Your task to perform on an android device: Open privacy settings Image 0: 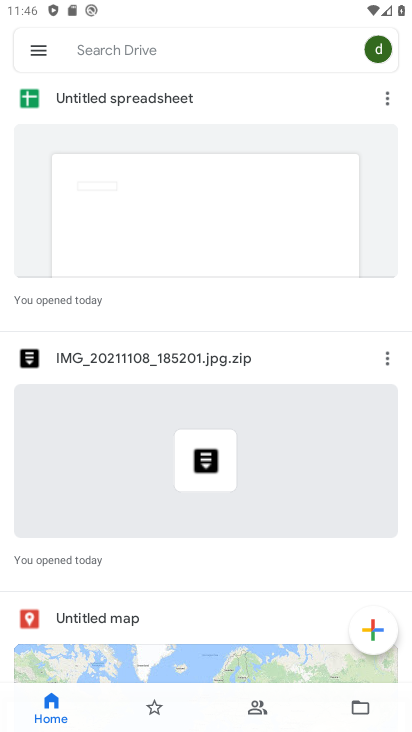
Step 0: press home button
Your task to perform on an android device: Open privacy settings Image 1: 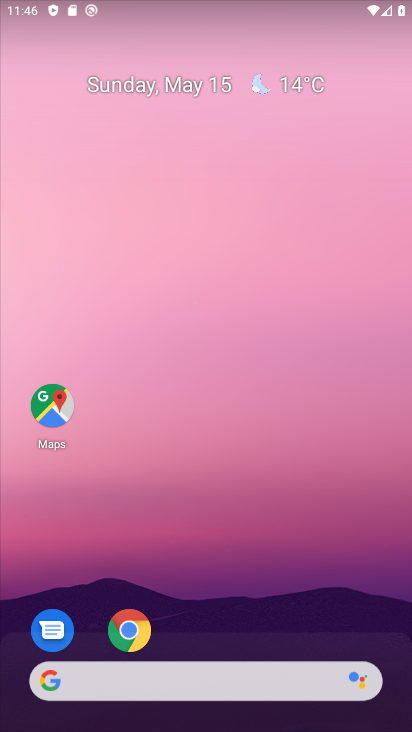
Step 1: drag from (257, 614) to (210, 208)
Your task to perform on an android device: Open privacy settings Image 2: 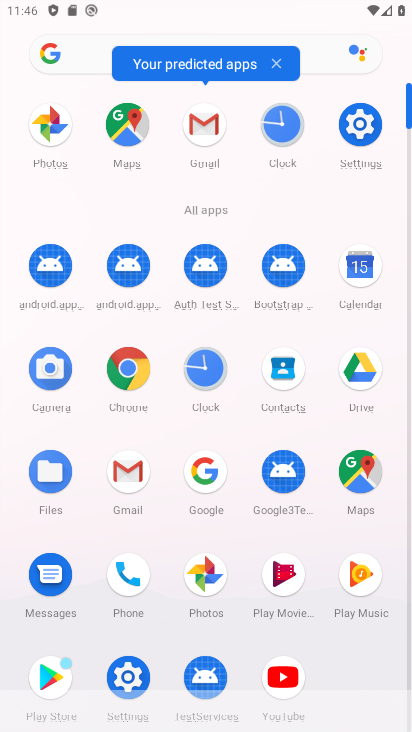
Step 2: click (357, 141)
Your task to perform on an android device: Open privacy settings Image 3: 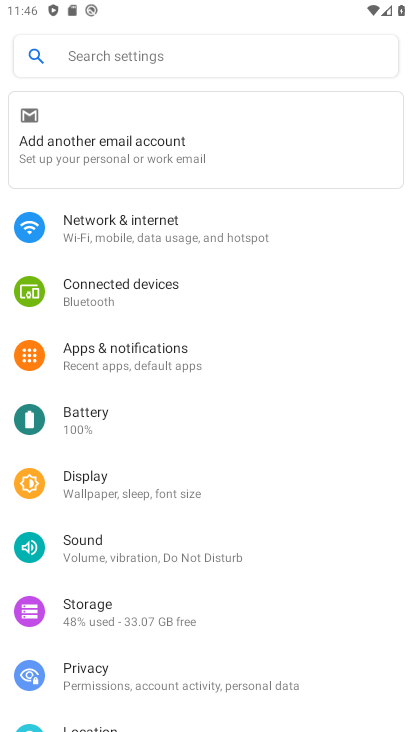
Step 3: click (199, 664)
Your task to perform on an android device: Open privacy settings Image 4: 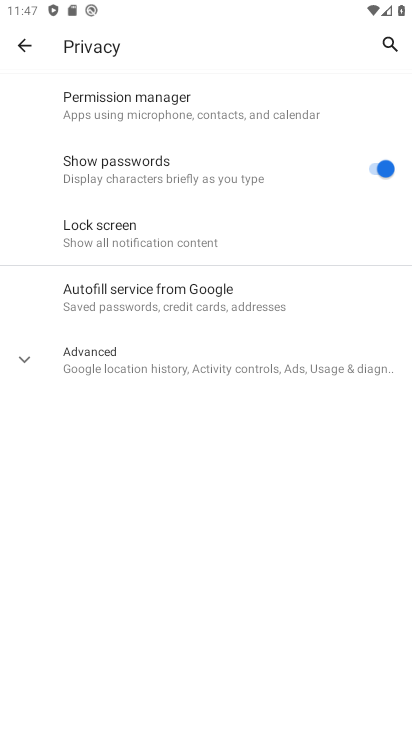
Step 4: task complete